Your task to perform on an android device: Go to wifi settings Image 0: 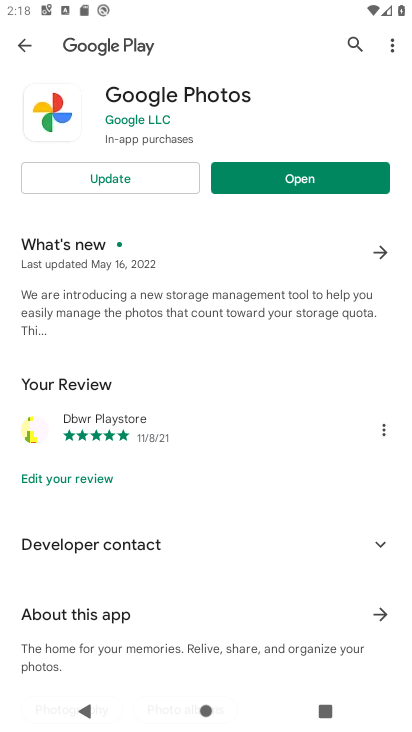
Step 0: press home button
Your task to perform on an android device: Go to wifi settings Image 1: 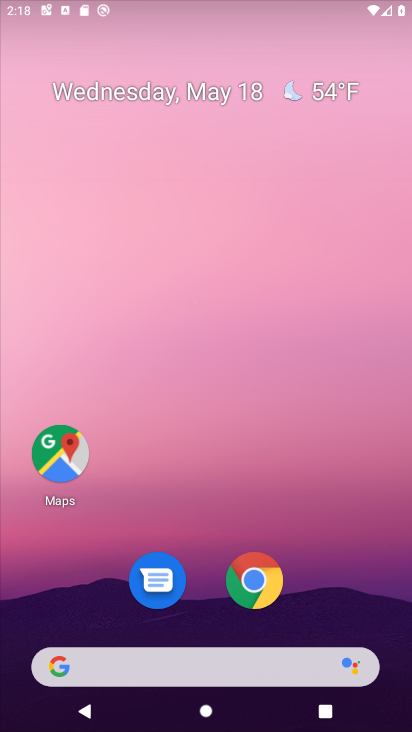
Step 1: drag from (206, 640) to (285, 8)
Your task to perform on an android device: Go to wifi settings Image 2: 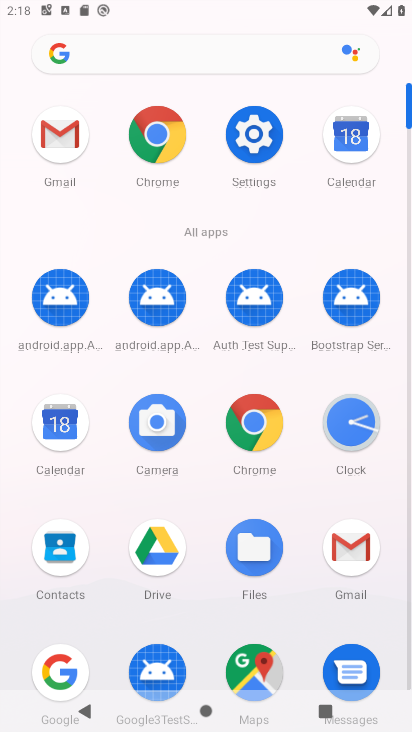
Step 2: click (243, 138)
Your task to perform on an android device: Go to wifi settings Image 3: 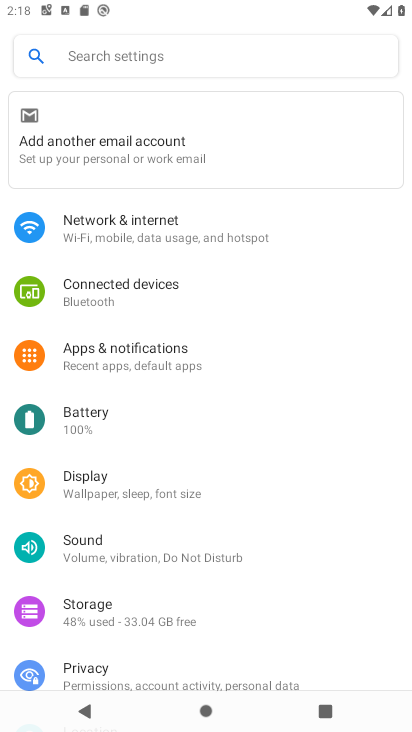
Step 3: click (105, 241)
Your task to perform on an android device: Go to wifi settings Image 4: 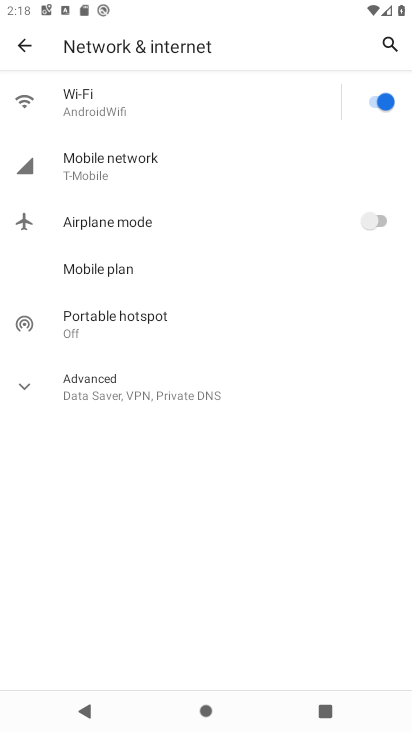
Step 4: click (124, 99)
Your task to perform on an android device: Go to wifi settings Image 5: 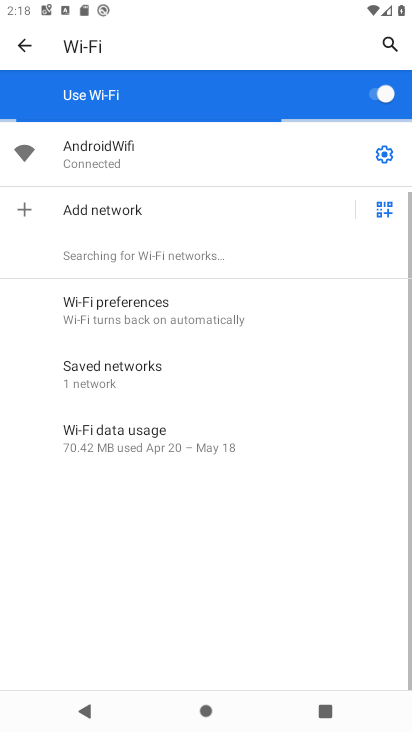
Step 5: drag from (191, 544) to (264, 188)
Your task to perform on an android device: Go to wifi settings Image 6: 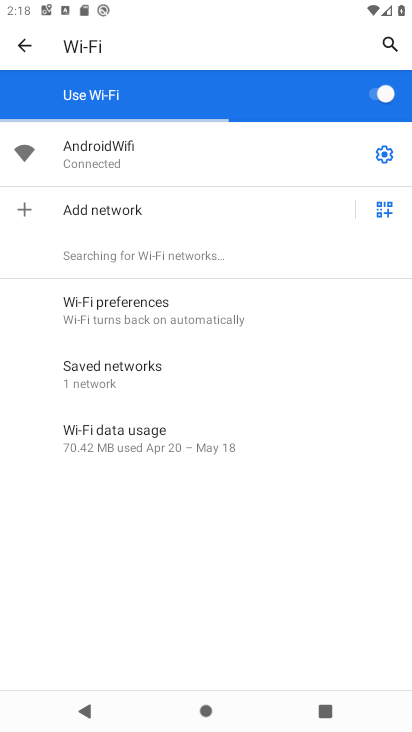
Step 6: click (394, 155)
Your task to perform on an android device: Go to wifi settings Image 7: 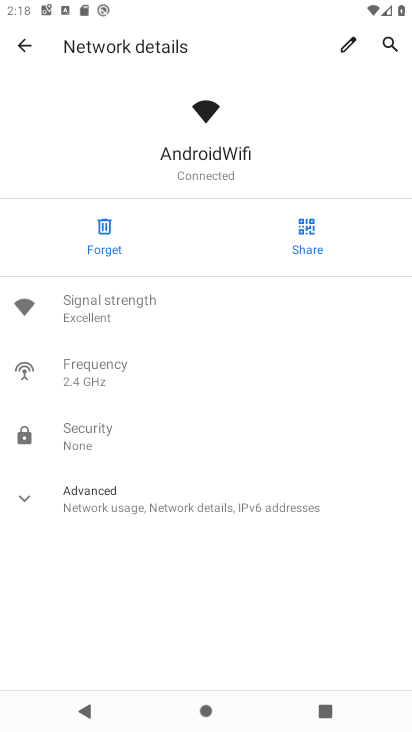
Step 7: task complete